Your task to perform on an android device: toggle javascript in the chrome app Image 0: 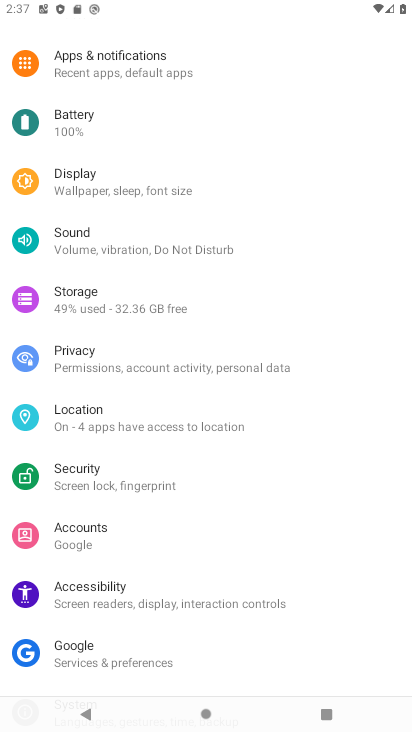
Step 0: task complete